Your task to perform on an android device: Open Google Chrome and click the shortcut for Amazon.com Image 0: 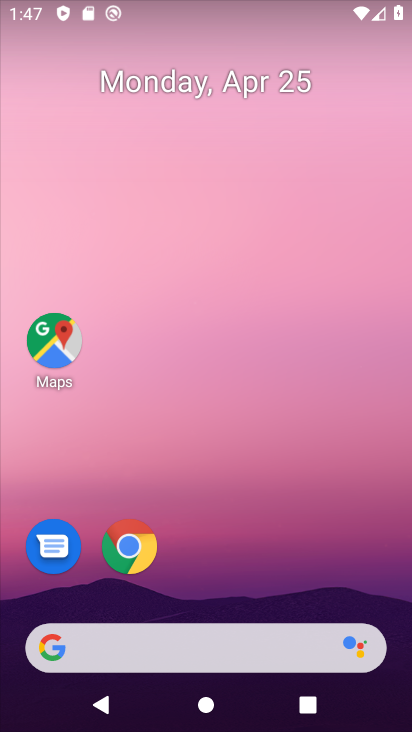
Step 0: drag from (245, 555) to (287, 183)
Your task to perform on an android device: Open Google Chrome and click the shortcut for Amazon.com Image 1: 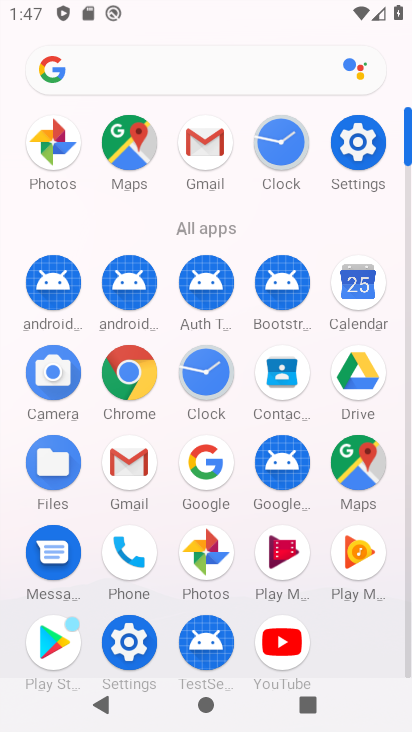
Step 1: drag from (223, 581) to (249, 420)
Your task to perform on an android device: Open Google Chrome and click the shortcut for Amazon.com Image 2: 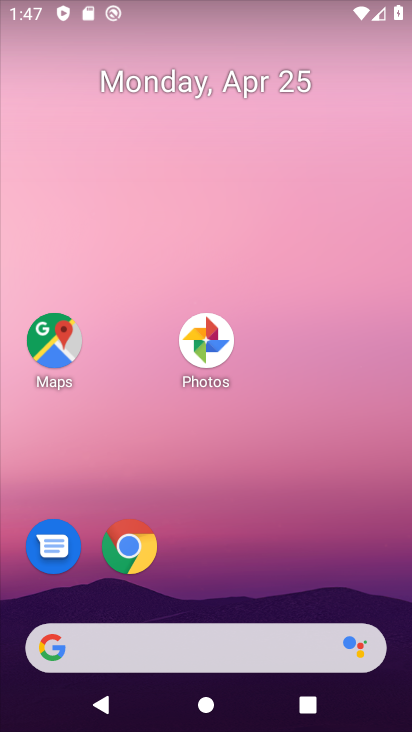
Step 2: drag from (286, 432) to (286, 222)
Your task to perform on an android device: Open Google Chrome and click the shortcut for Amazon.com Image 3: 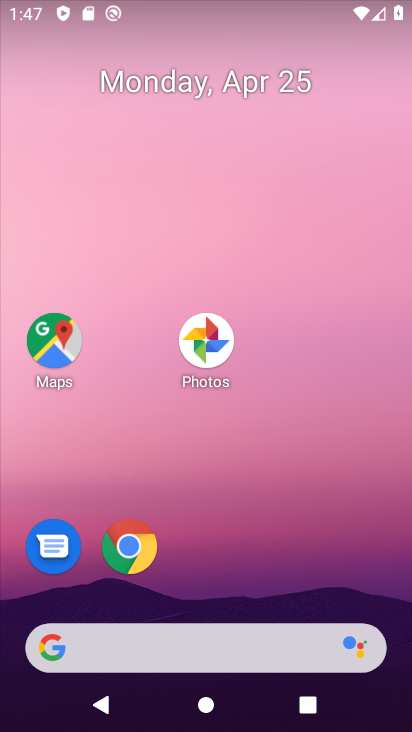
Step 3: click (130, 552)
Your task to perform on an android device: Open Google Chrome and click the shortcut for Amazon.com Image 4: 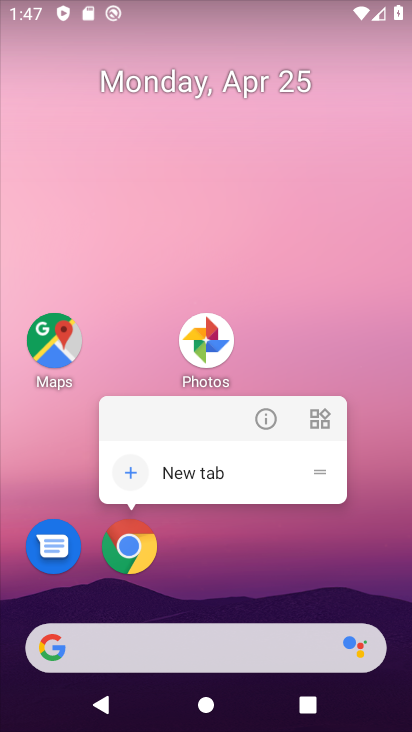
Step 4: click (130, 552)
Your task to perform on an android device: Open Google Chrome and click the shortcut for Amazon.com Image 5: 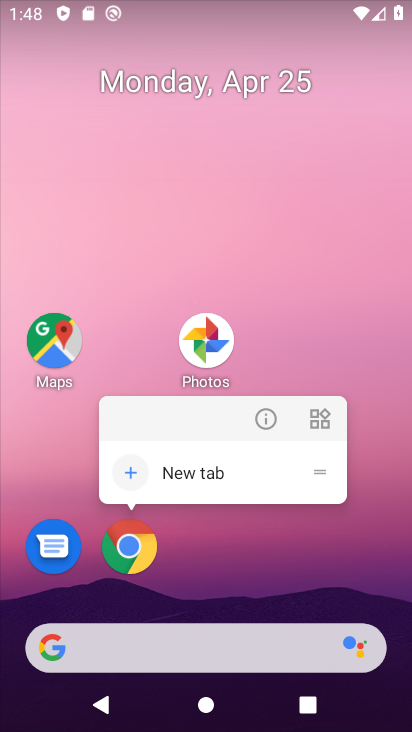
Step 5: click (126, 547)
Your task to perform on an android device: Open Google Chrome and click the shortcut for Amazon.com Image 6: 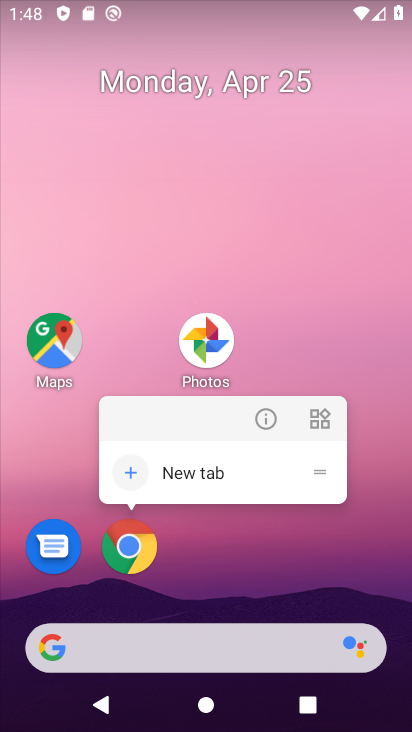
Step 6: click (126, 547)
Your task to perform on an android device: Open Google Chrome and click the shortcut for Amazon.com Image 7: 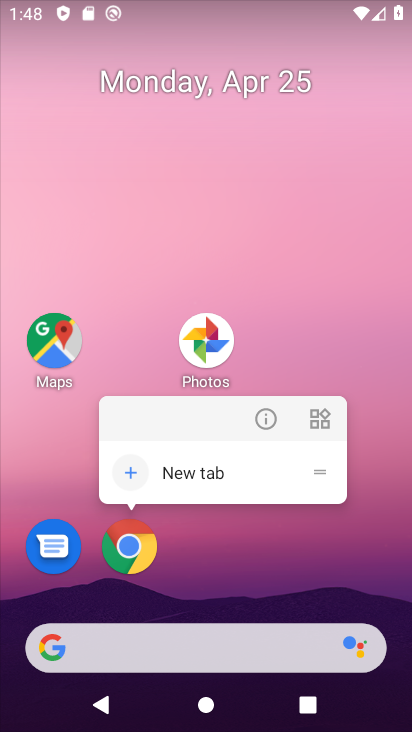
Step 7: click (126, 547)
Your task to perform on an android device: Open Google Chrome and click the shortcut for Amazon.com Image 8: 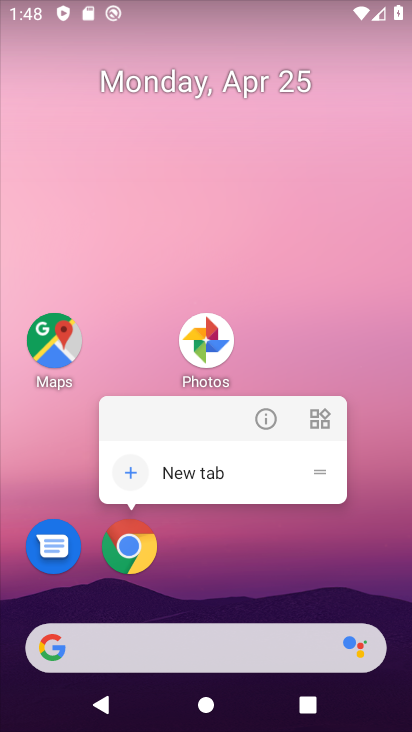
Step 8: click (126, 547)
Your task to perform on an android device: Open Google Chrome and click the shortcut for Amazon.com Image 9: 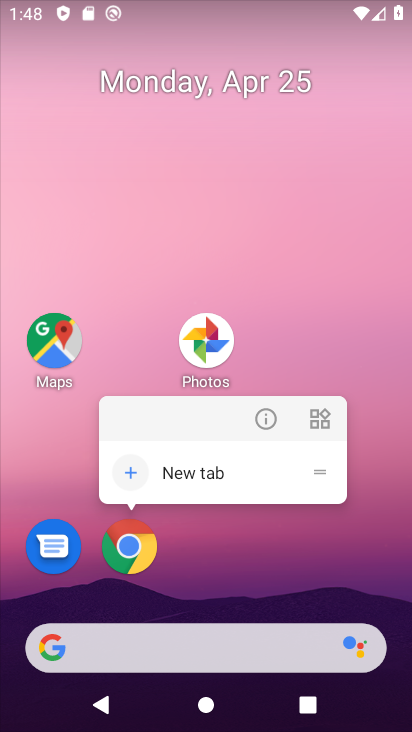
Step 9: click (271, 546)
Your task to perform on an android device: Open Google Chrome and click the shortcut for Amazon.com Image 10: 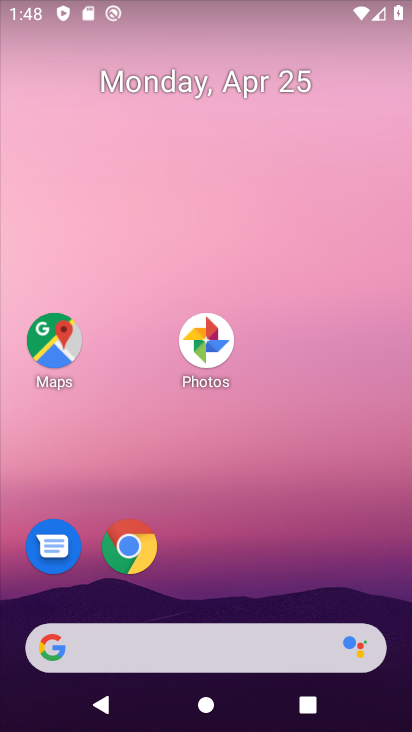
Step 10: click (285, 36)
Your task to perform on an android device: Open Google Chrome and click the shortcut for Amazon.com Image 11: 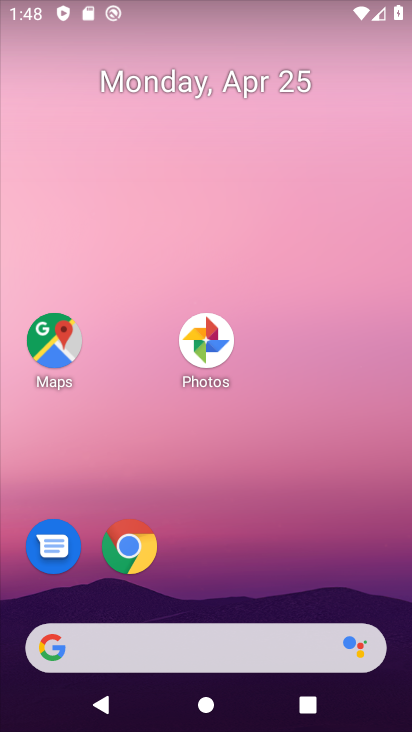
Step 11: drag from (249, 540) to (285, 204)
Your task to perform on an android device: Open Google Chrome and click the shortcut for Amazon.com Image 12: 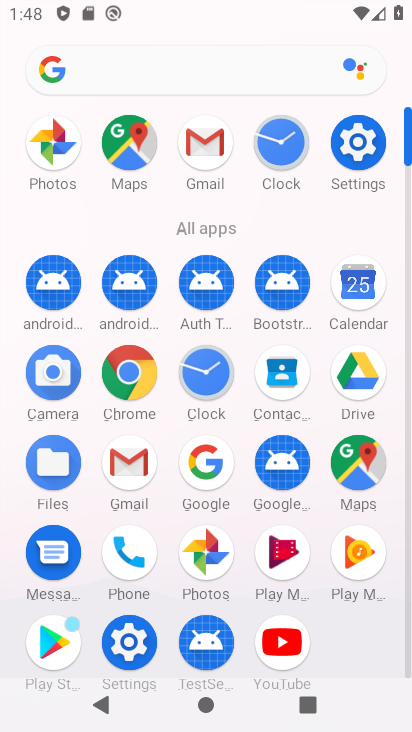
Step 12: click (125, 372)
Your task to perform on an android device: Open Google Chrome and click the shortcut for Amazon.com Image 13: 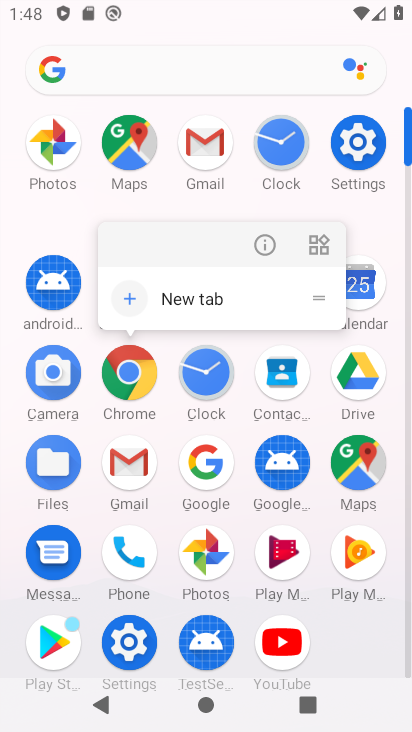
Step 13: click (126, 373)
Your task to perform on an android device: Open Google Chrome and click the shortcut for Amazon.com Image 14: 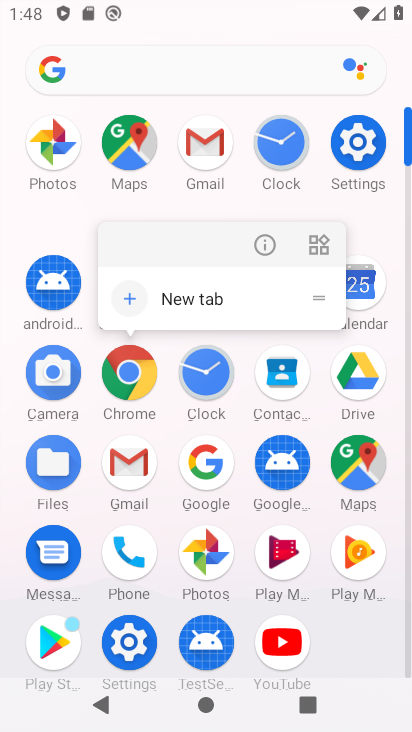
Step 14: click (132, 372)
Your task to perform on an android device: Open Google Chrome and click the shortcut for Amazon.com Image 15: 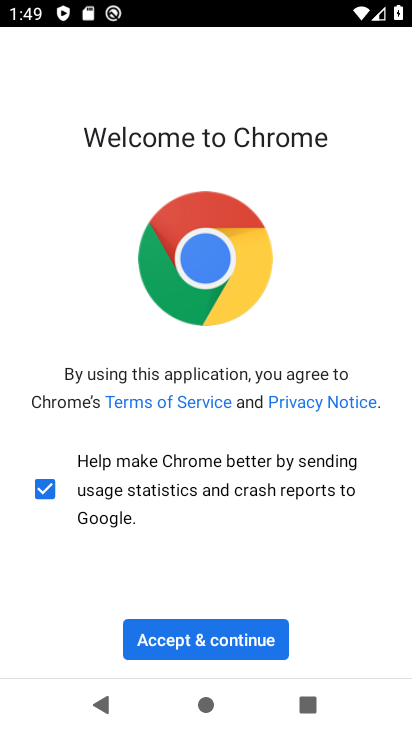
Step 15: click (193, 639)
Your task to perform on an android device: Open Google Chrome and click the shortcut for Amazon.com Image 16: 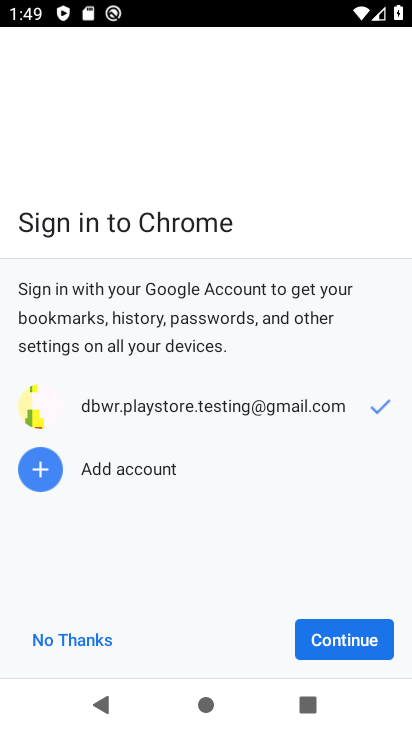
Step 16: click (344, 618)
Your task to perform on an android device: Open Google Chrome and click the shortcut for Amazon.com Image 17: 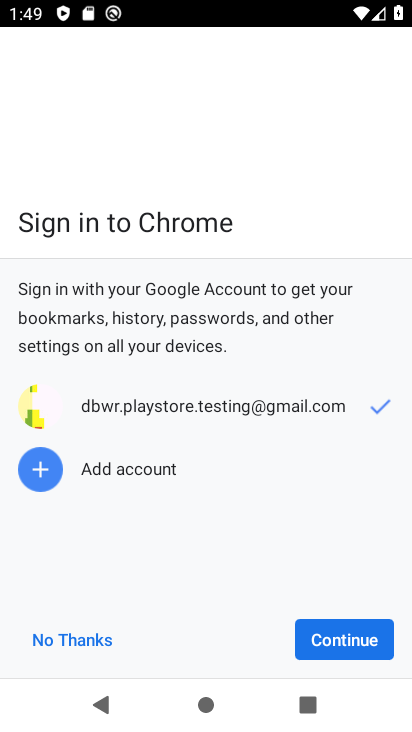
Step 17: click (341, 633)
Your task to perform on an android device: Open Google Chrome and click the shortcut for Amazon.com Image 18: 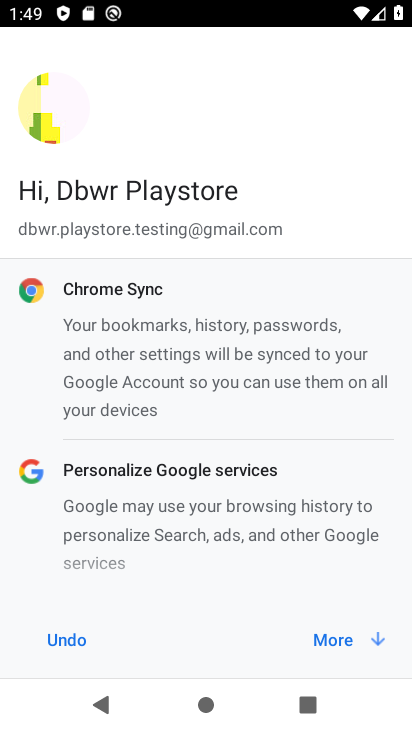
Step 18: click (325, 644)
Your task to perform on an android device: Open Google Chrome and click the shortcut for Amazon.com Image 19: 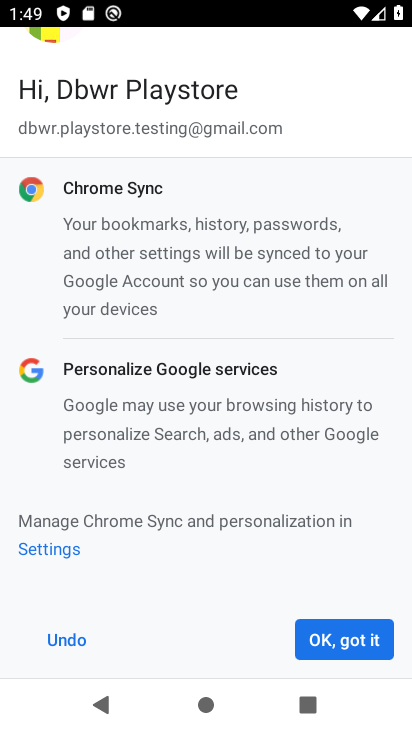
Step 19: click (336, 643)
Your task to perform on an android device: Open Google Chrome and click the shortcut for Amazon.com Image 20: 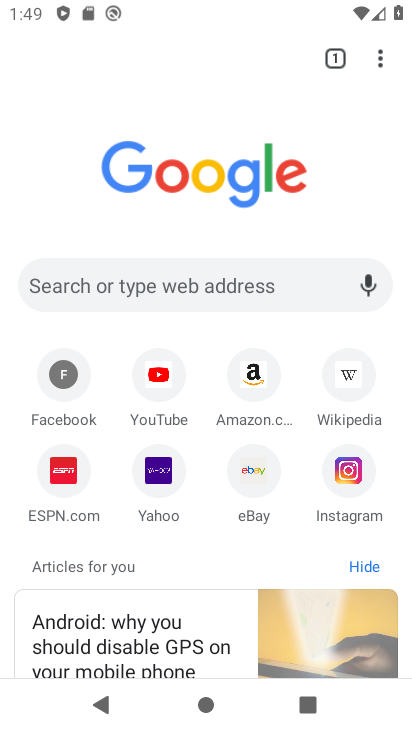
Step 20: click (244, 375)
Your task to perform on an android device: Open Google Chrome and click the shortcut for Amazon.com Image 21: 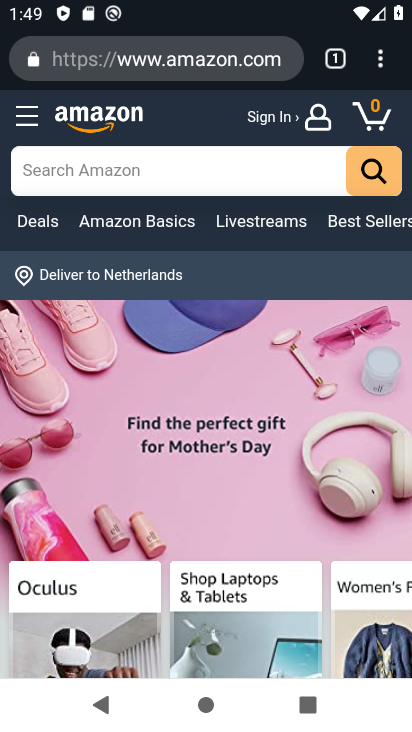
Step 21: task complete